Your task to perform on an android device: turn notification dots off Image 0: 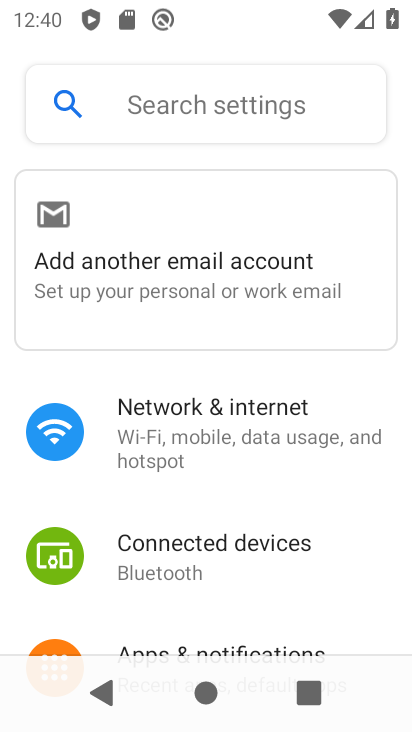
Step 0: click (200, 649)
Your task to perform on an android device: turn notification dots off Image 1: 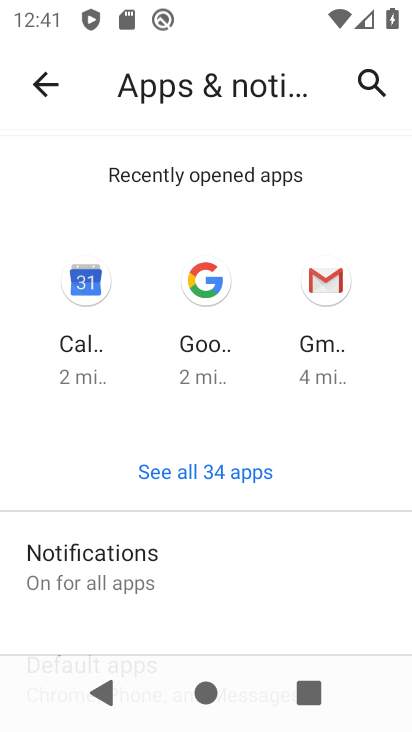
Step 1: drag from (213, 646) to (204, 212)
Your task to perform on an android device: turn notification dots off Image 2: 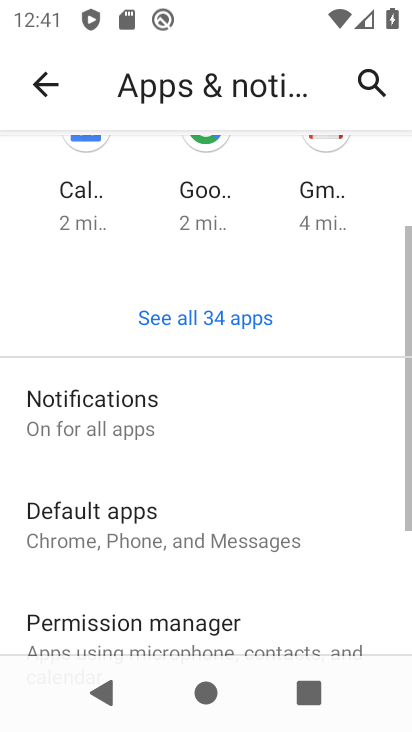
Step 2: click (106, 556)
Your task to perform on an android device: turn notification dots off Image 3: 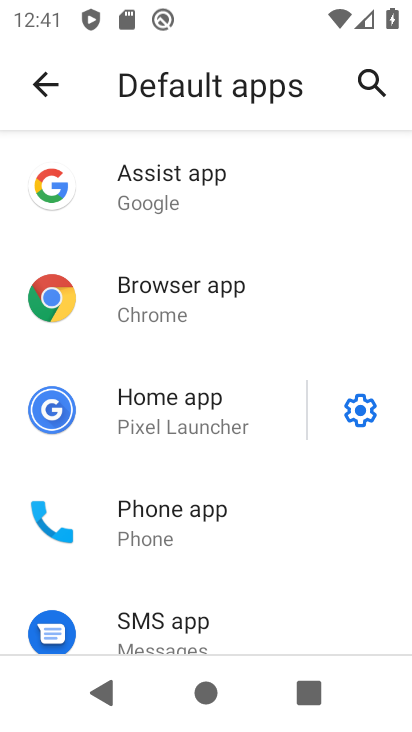
Step 3: press back button
Your task to perform on an android device: turn notification dots off Image 4: 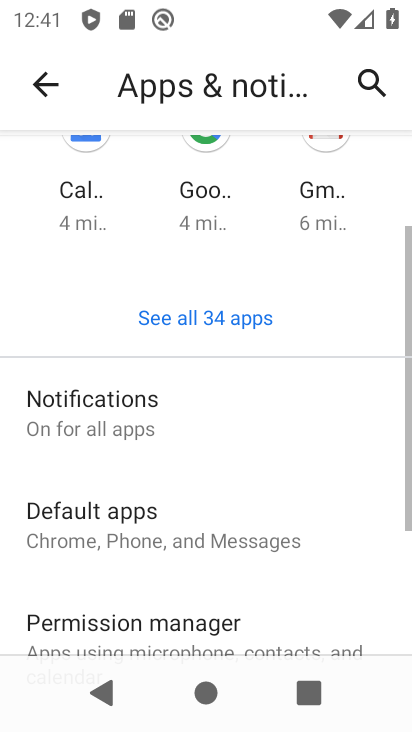
Step 4: click (48, 428)
Your task to perform on an android device: turn notification dots off Image 5: 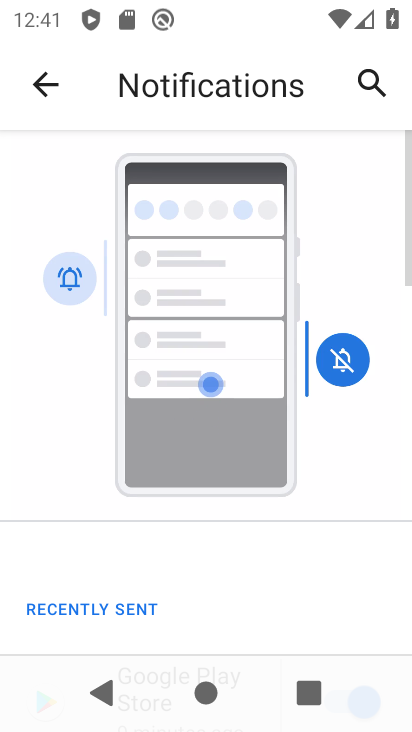
Step 5: drag from (175, 338) to (213, 73)
Your task to perform on an android device: turn notification dots off Image 6: 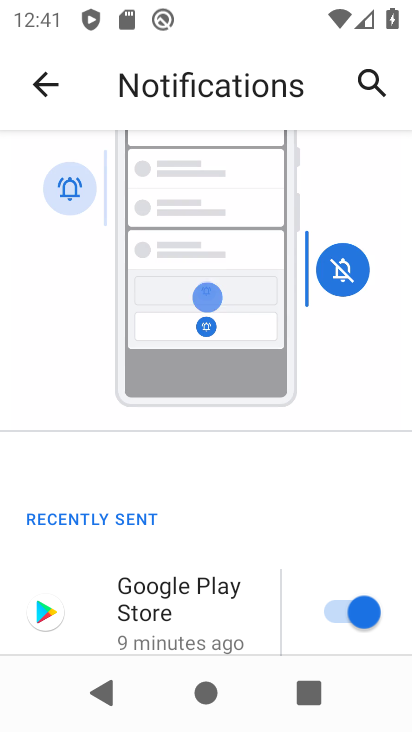
Step 6: click (192, 533)
Your task to perform on an android device: turn notification dots off Image 7: 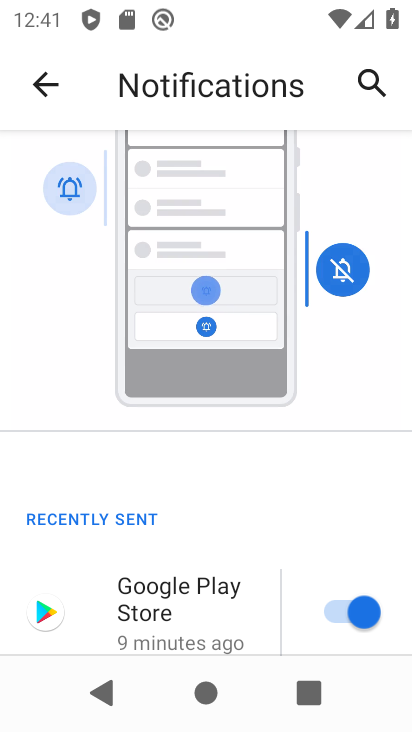
Step 7: click (191, 532)
Your task to perform on an android device: turn notification dots off Image 8: 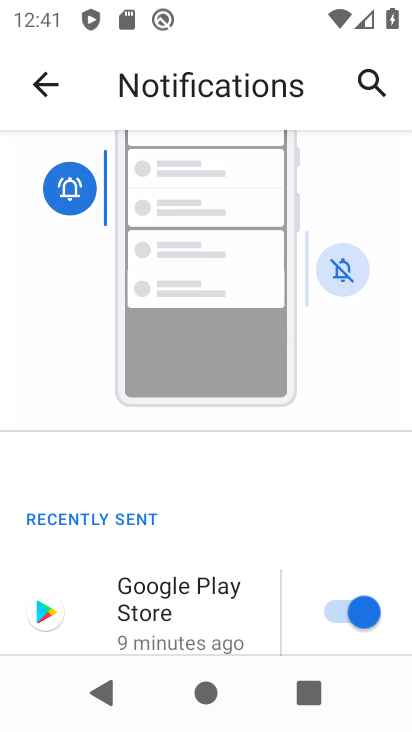
Step 8: drag from (185, 631) to (199, 290)
Your task to perform on an android device: turn notification dots off Image 9: 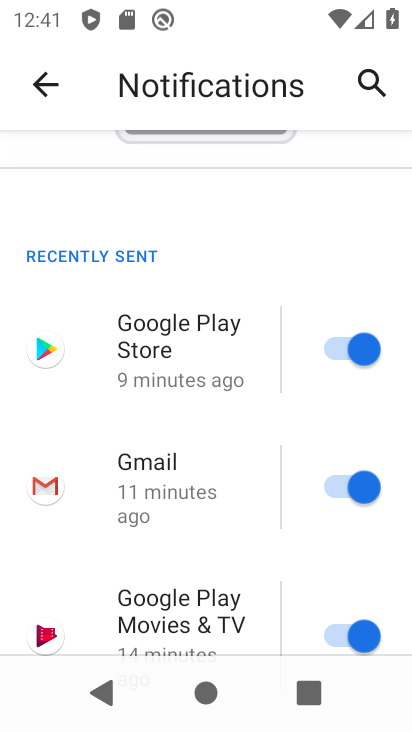
Step 9: drag from (167, 633) to (247, 63)
Your task to perform on an android device: turn notification dots off Image 10: 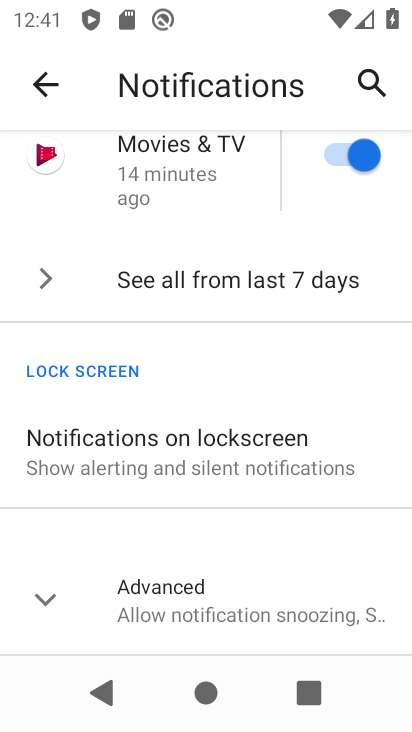
Step 10: click (162, 600)
Your task to perform on an android device: turn notification dots off Image 11: 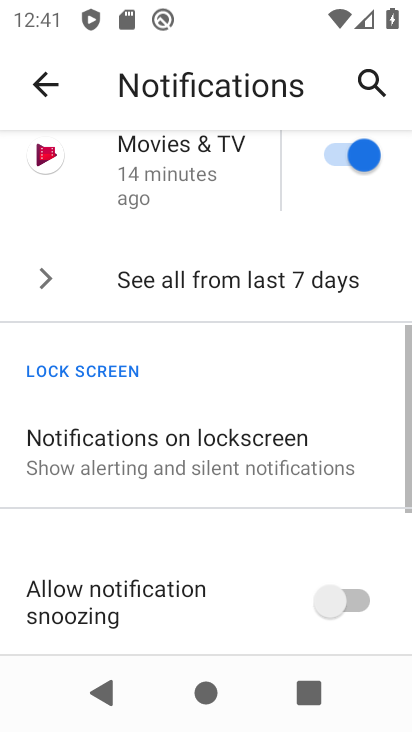
Step 11: drag from (222, 621) to (277, 277)
Your task to perform on an android device: turn notification dots off Image 12: 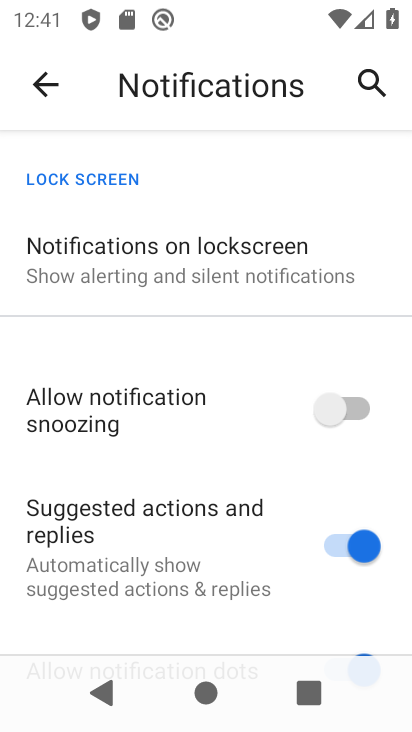
Step 12: drag from (242, 569) to (271, 306)
Your task to perform on an android device: turn notification dots off Image 13: 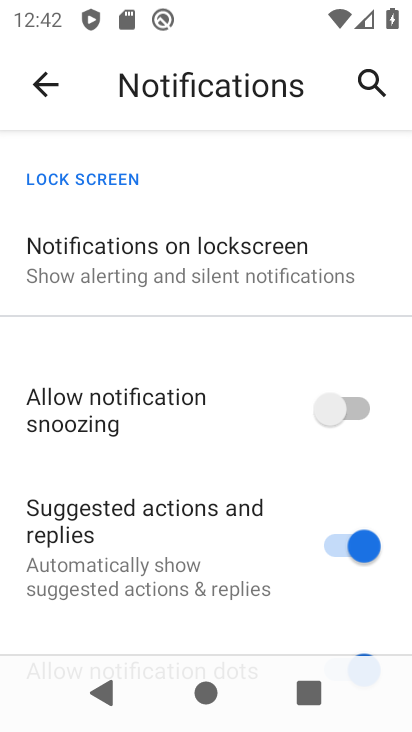
Step 13: drag from (152, 613) to (178, 302)
Your task to perform on an android device: turn notification dots off Image 14: 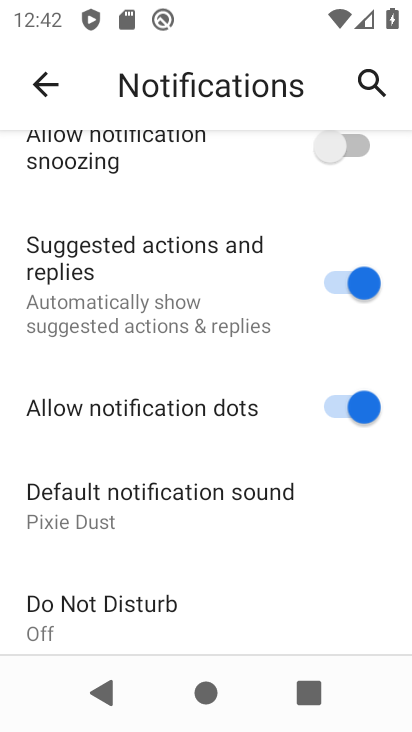
Step 14: click (346, 403)
Your task to perform on an android device: turn notification dots off Image 15: 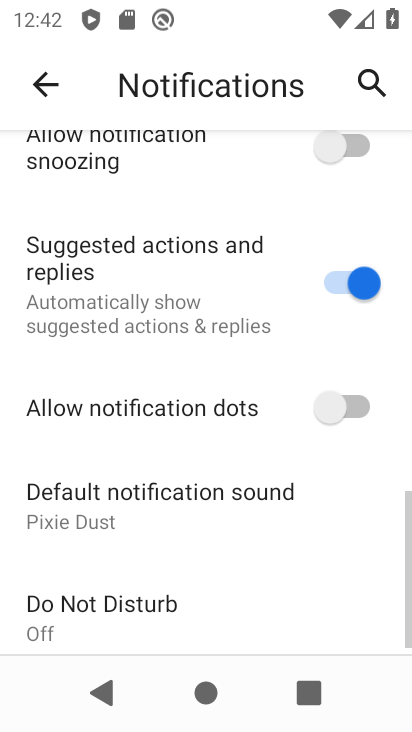
Step 15: task complete